Your task to perform on an android device: Go to ESPN.com Image 0: 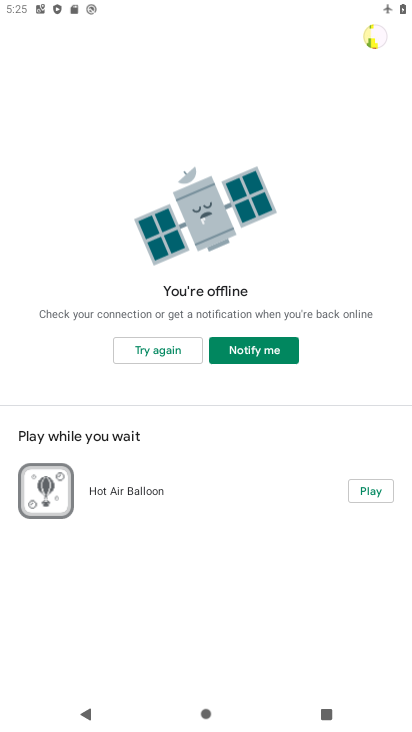
Step 0: press home button
Your task to perform on an android device: Go to ESPN.com Image 1: 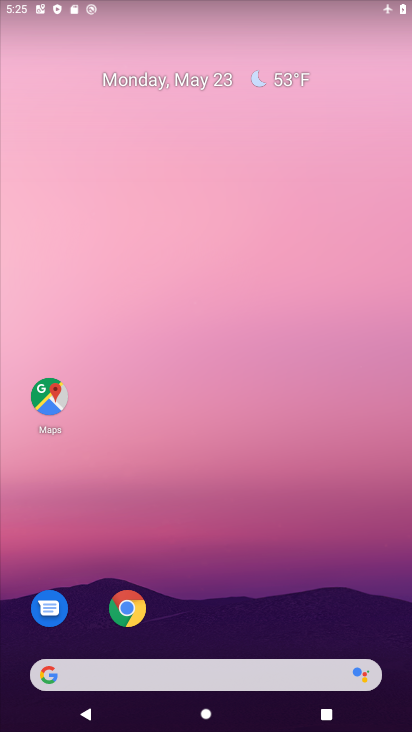
Step 1: drag from (246, 604) to (225, 162)
Your task to perform on an android device: Go to ESPN.com Image 2: 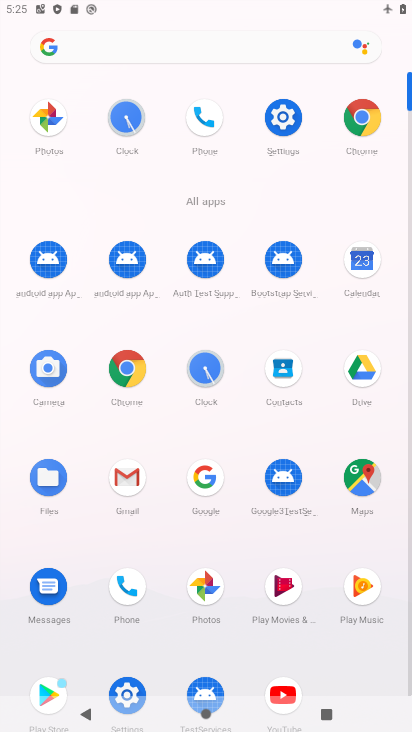
Step 2: click (130, 366)
Your task to perform on an android device: Go to ESPN.com Image 3: 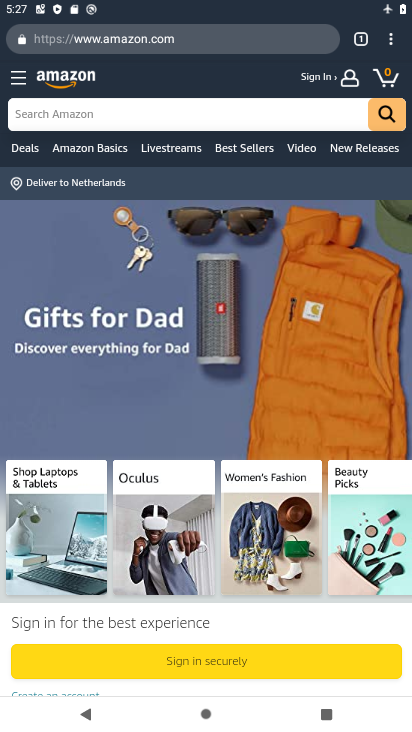
Step 3: click (356, 50)
Your task to perform on an android device: Go to ESPN.com Image 4: 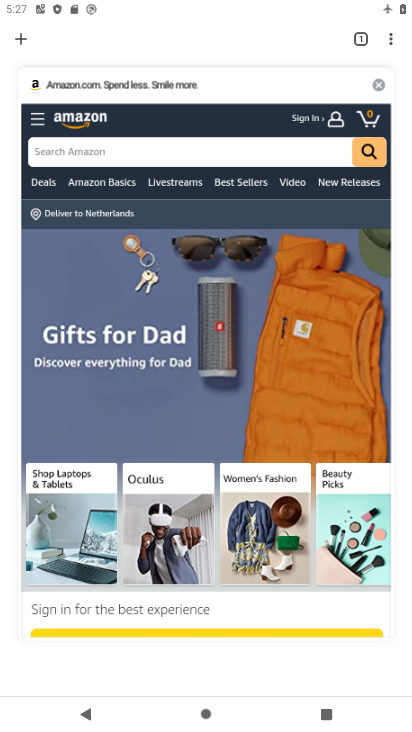
Step 4: click (16, 49)
Your task to perform on an android device: Go to ESPN.com Image 5: 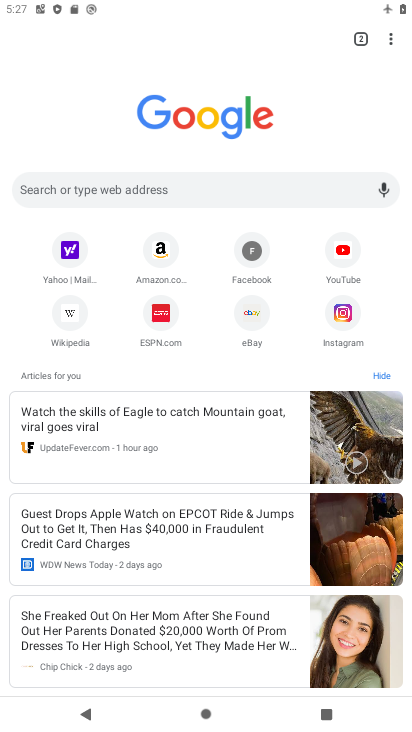
Step 5: click (160, 328)
Your task to perform on an android device: Go to ESPN.com Image 6: 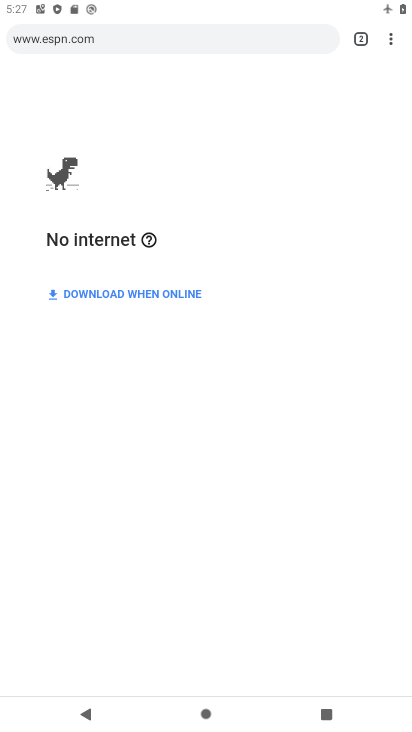
Step 6: task complete